Your task to perform on an android device: What's on my calendar tomorrow? Image 0: 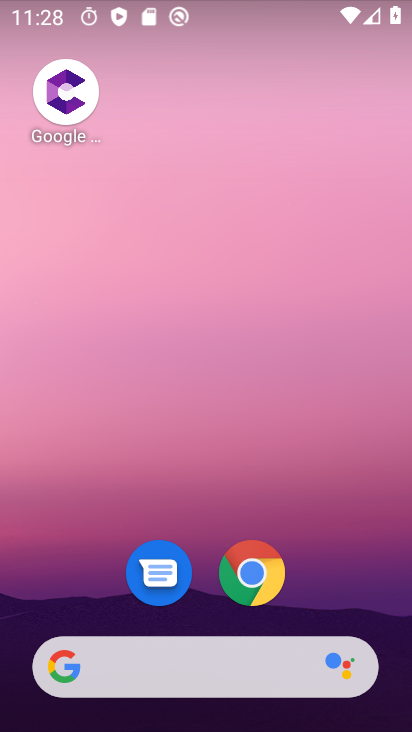
Step 0: click (386, 210)
Your task to perform on an android device: What's on my calendar tomorrow? Image 1: 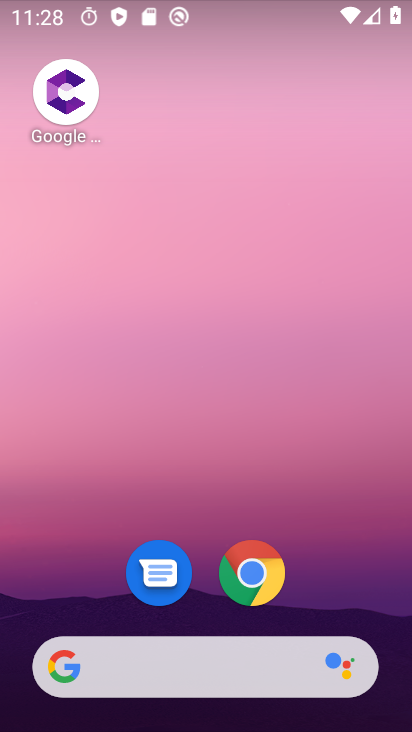
Step 1: drag from (376, 564) to (361, 198)
Your task to perform on an android device: What's on my calendar tomorrow? Image 2: 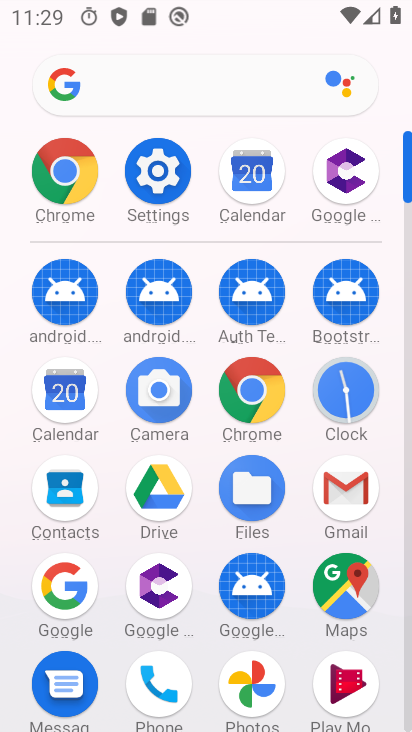
Step 2: click (71, 400)
Your task to perform on an android device: What's on my calendar tomorrow? Image 3: 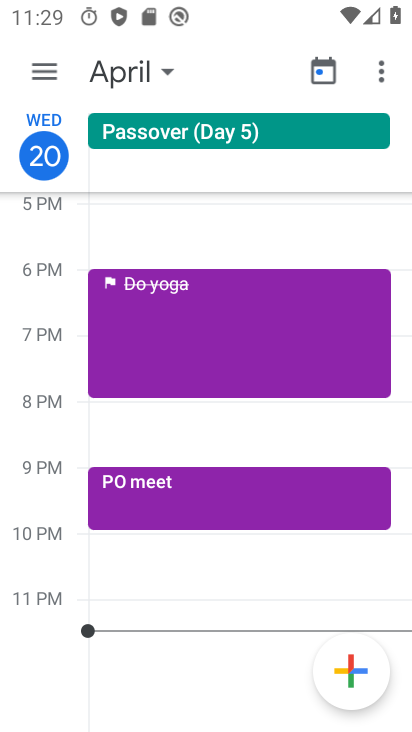
Step 3: click (167, 71)
Your task to perform on an android device: What's on my calendar tomorrow? Image 4: 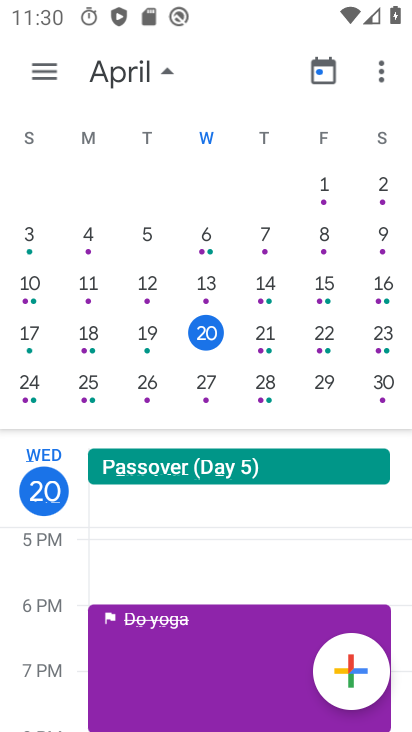
Step 4: click (256, 329)
Your task to perform on an android device: What's on my calendar tomorrow? Image 5: 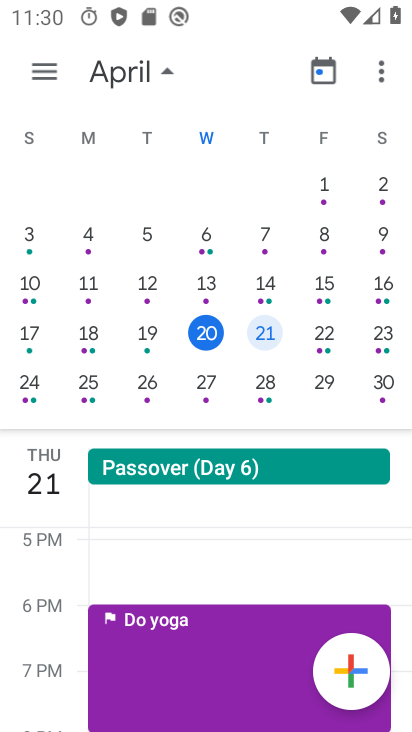
Step 5: task complete